Your task to perform on an android device: Search for Italian restaurants on Maps Image 0: 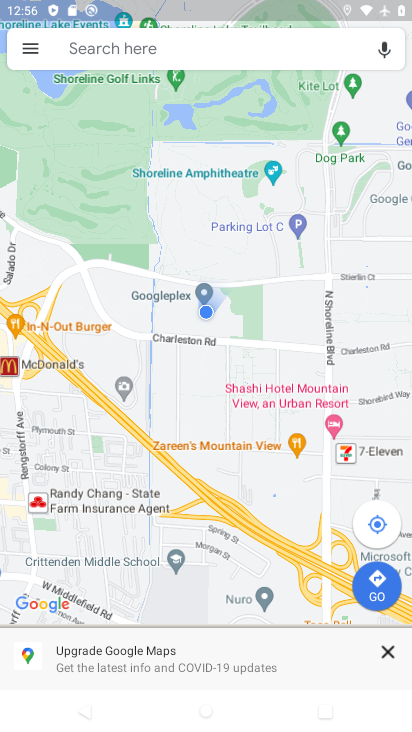
Step 0: click (128, 50)
Your task to perform on an android device: Search for Italian restaurants on Maps Image 1: 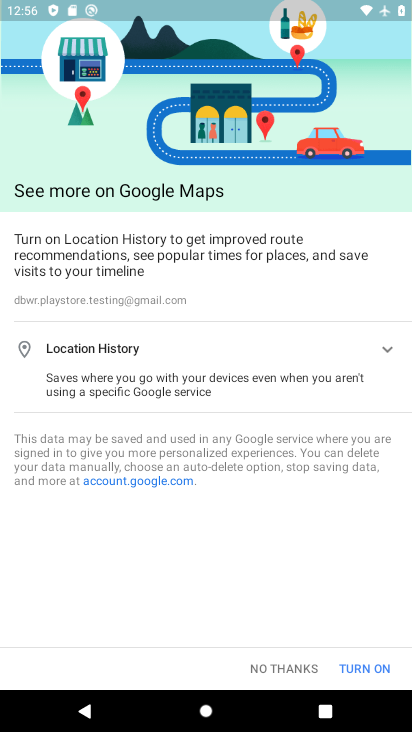
Step 1: press back button
Your task to perform on an android device: Search for Italian restaurants on Maps Image 2: 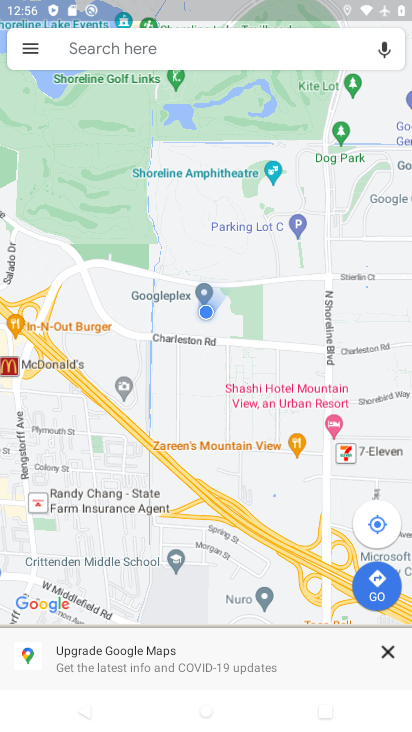
Step 2: click (126, 50)
Your task to perform on an android device: Search for Italian restaurants on Maps Image 3: 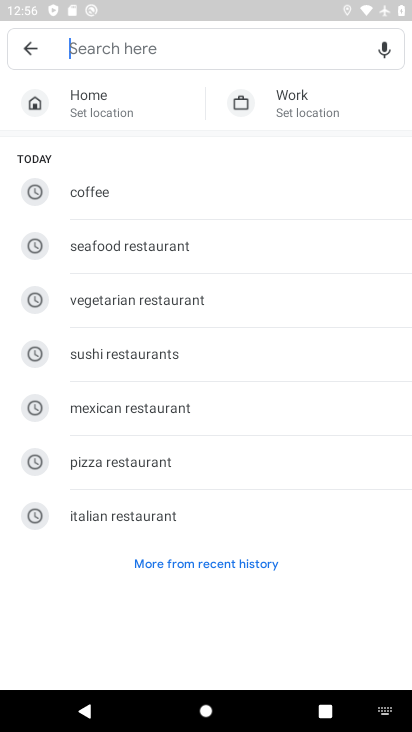
Step 3: click (137, 513)
Your task to perform on an android device: Search for Italian restaurants on Maps Image 4: 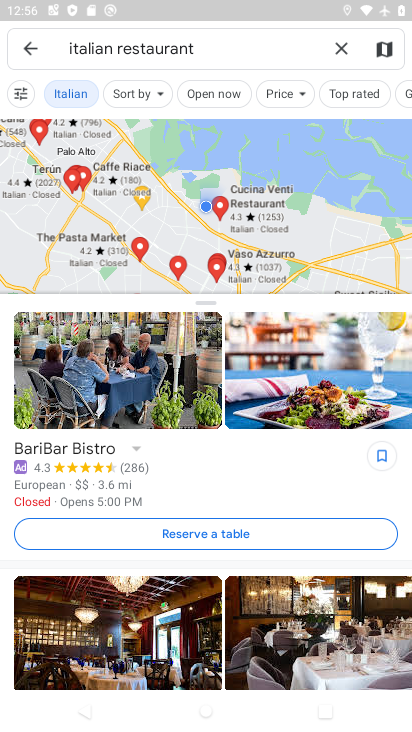
Step 4: task complete